Your task to perform on an android device: empty trash in google photos Image 0: 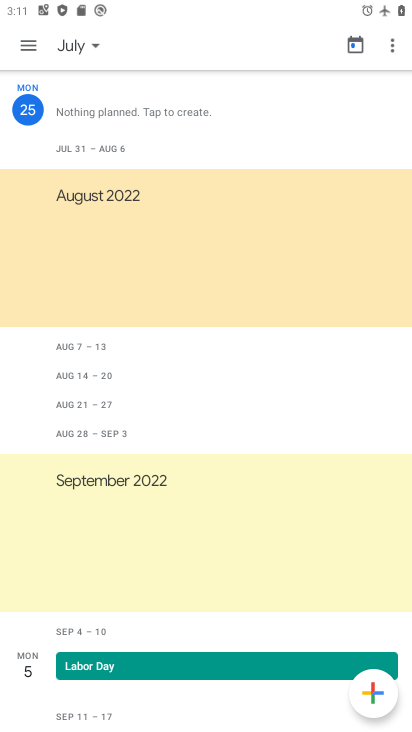
Step 0: press home button
Your task to perform on an android device: empty trash in google photos Image 1: 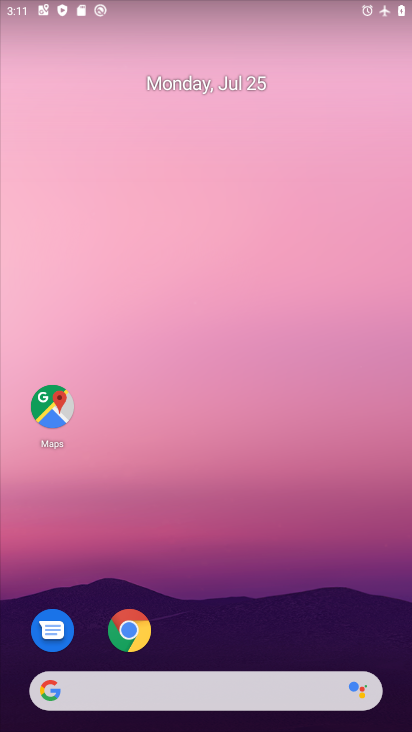
Step 1: drag from (300, 651) to (272, 144)
Your task to perform on an android device: empty trash in google photos Image 2: 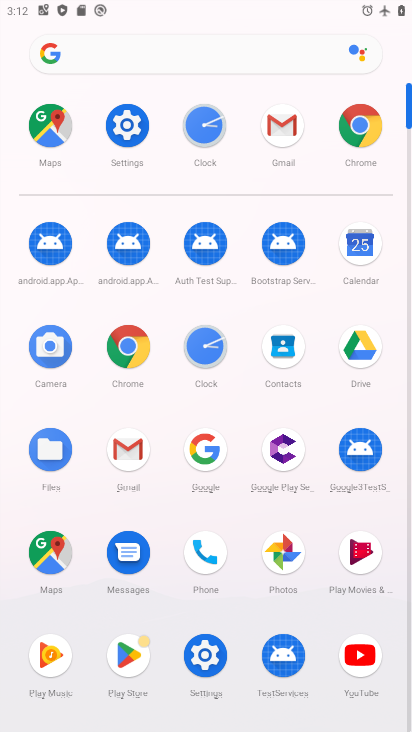
Step 2: click (291, 582)
Your task to perform on an android device: empty trash in google photos Image 3: 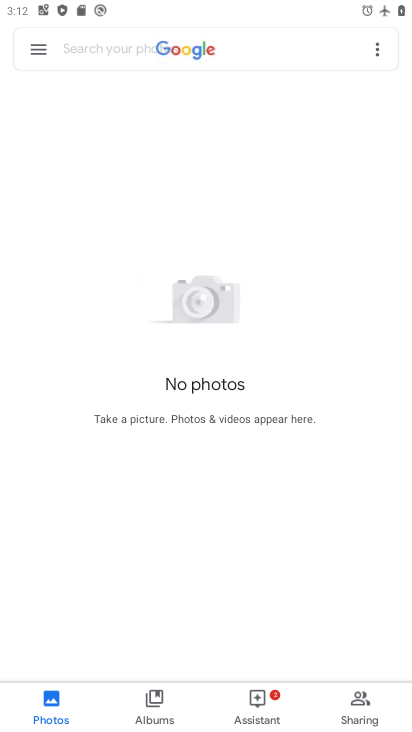
Step 3: task complete